Your task to perform on an android device: Search for seafood restaurants on Google Maps Image 0: 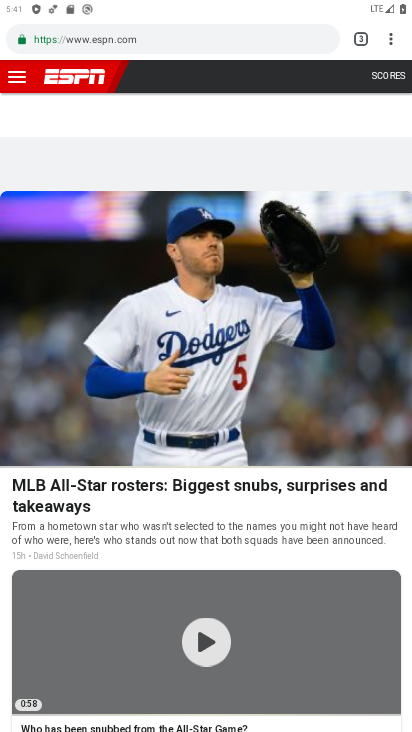
Step 0: press home button
Your task to perform on an android device: Search for seafood restaurants on Google Maps Image 1: 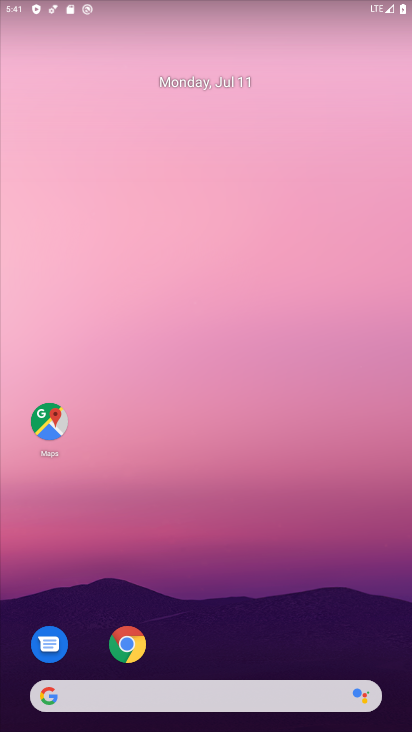
Step 1: drag from (298, 708) to (288, 88)
Your task to perform on an android device: Search for seafood restaurants on Google Maps Image 2: 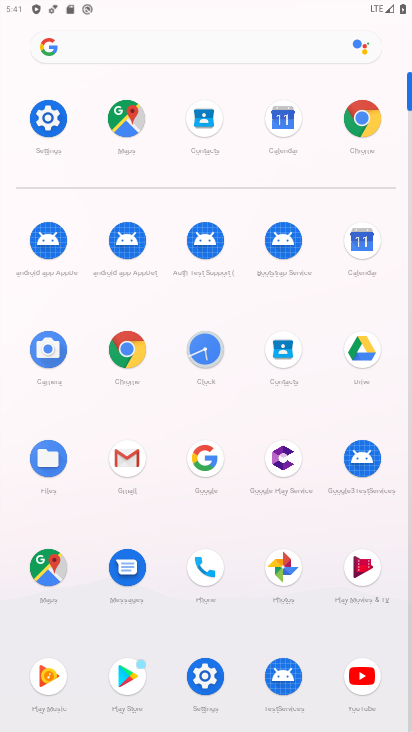
Step 2: click (48, 574)
Your task to perform on an android device: Search for seafood restaurants on Google Maps Image 3: 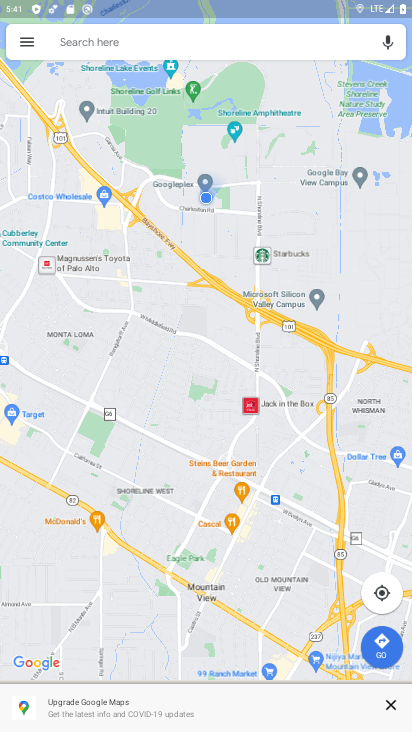
Step 3: click (244, 38)
Your task to perform on an android device: Search for seafood restaurants on Google Maps Image 4: 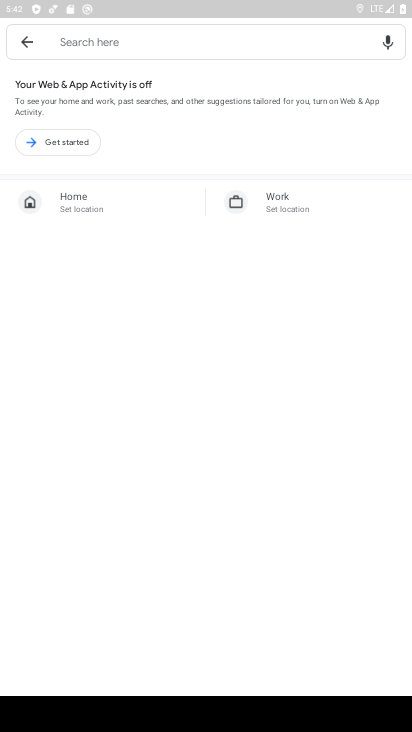
Step 4: type "seafood restaurant"
Your task to perform on an android device: Search for seafood restaurants on Google Maps Image 5: 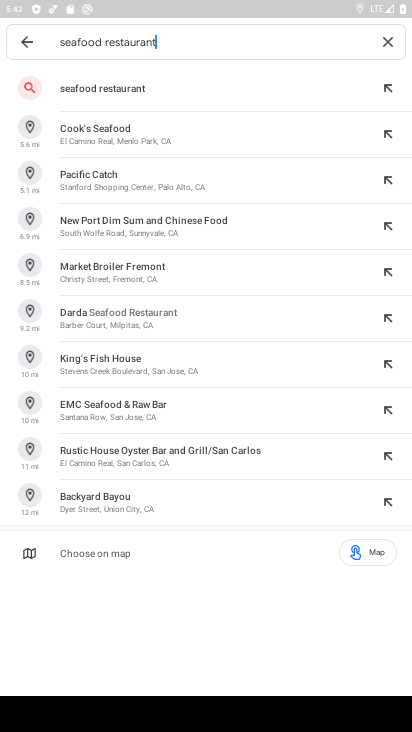
Step 5: click (192, 97)
Your task to perform on an android device: Search for seafood restaurants on Google Maps Image 6: 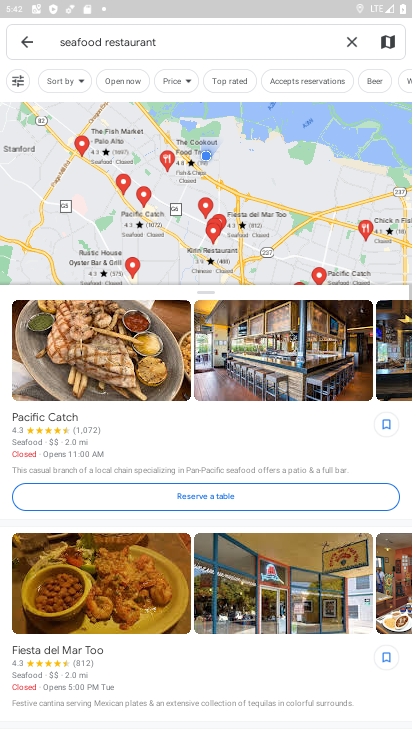
Step 6: task complete